Your task to perform on an android device: Open CNN.com Image 0: 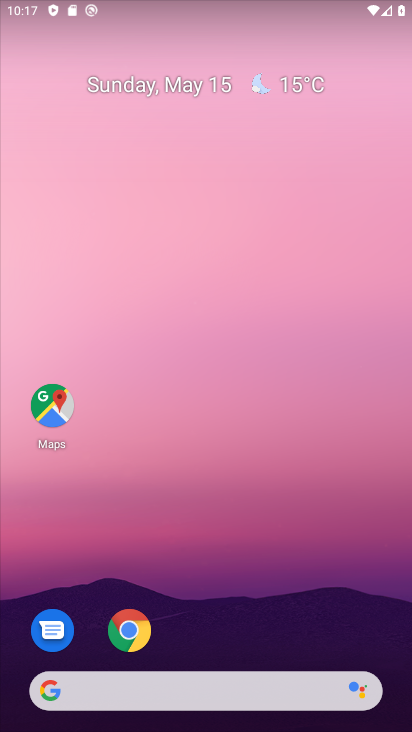
Step 0: click (130, 635)
Your task to perform on an android device: Open CNN.com Image 1: 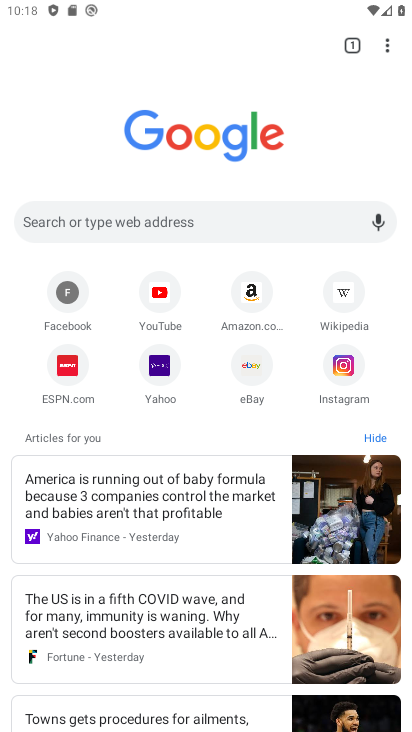
Step 1: click (225, 208)
Your task to perform on an android device: Open CNN.com Image 2: 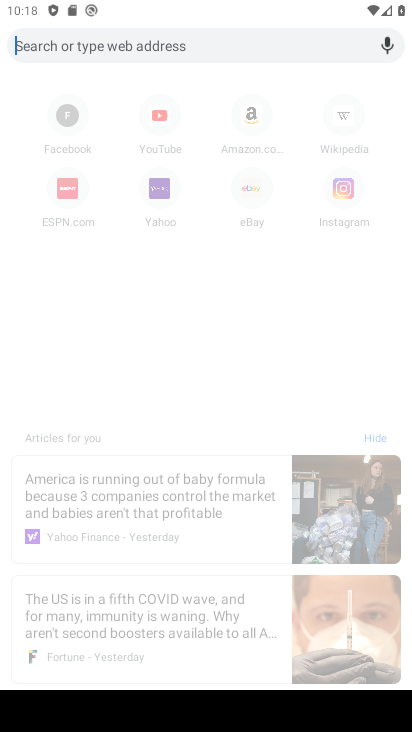
Step 2: type "CNN.com"
Your task to perform on an android device: Open CNN.com Image 3: 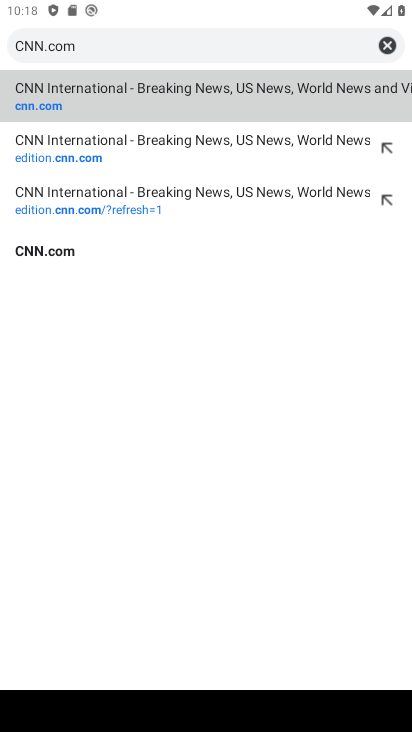
Step 3: click (122, 99)
Your task to perform on an android device: Open CNN.com Image 4: 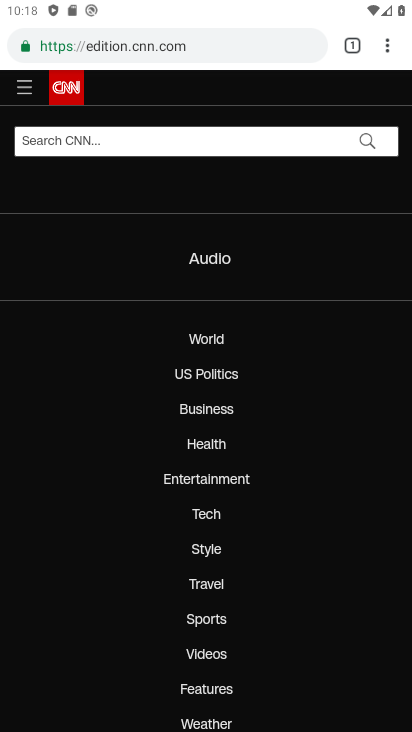
Step 4: task complete